Your task to perform on an android device: change keyboard looks Image 0: 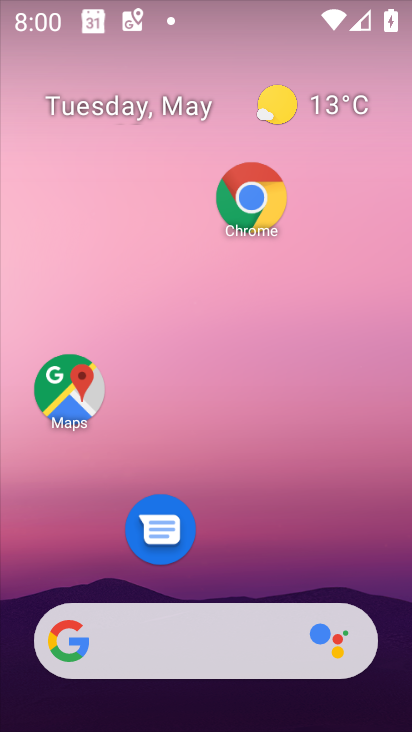
Step 0: drag from (361, 535) to (303, 130)
Your task to perform on an android device: change keyboard looks Image 1: 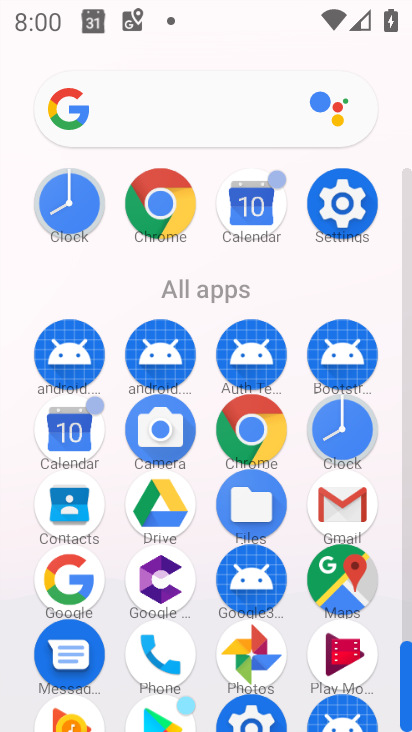
Step 1: click (341, 196)
Your task to perform on an android device: change keyboard looks Image 2: 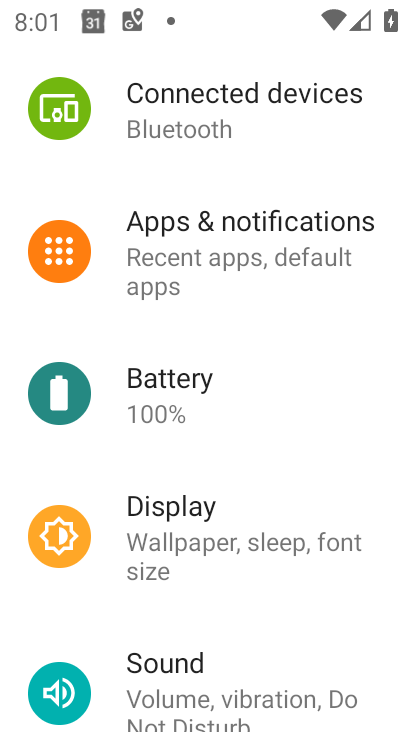
Step 2: drag from (256, 188) to (376, 700)
Your task to perform on an android device: change keyboard looks Image 3: 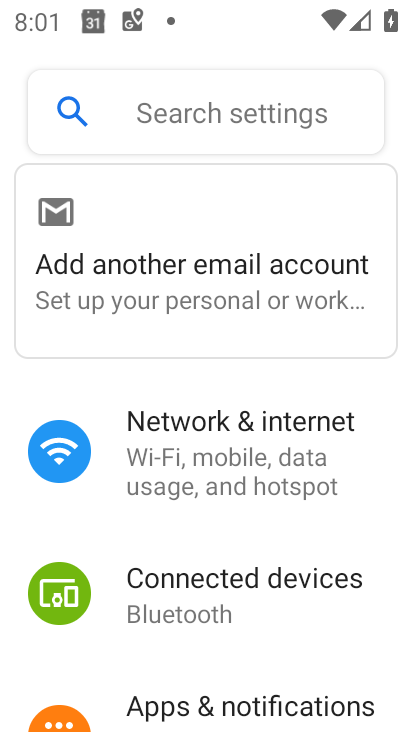
Step 3: drag from (293, 653) to (358, 8)
Your task to perform on an android device: change keyboard looks Image 4: 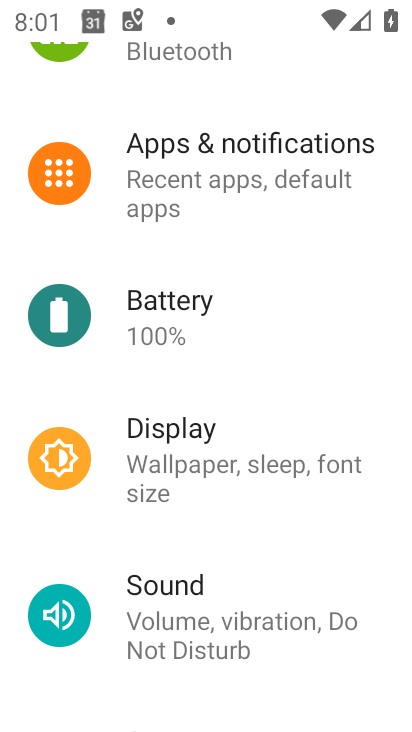
Step 4: drag from (245, 553) to (286, 9)
Your task to perform on an android device: change keyboard looks Image 5: 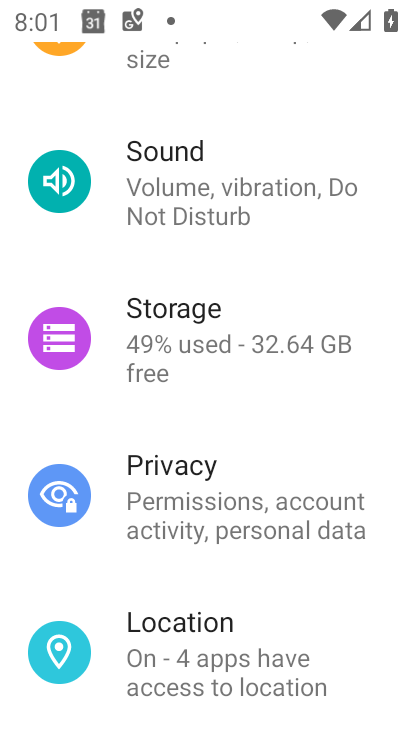
Step 5: drag from (215, 671) to (242, 77)
Your task to perform on an android device: change keyboard looks Image 6: 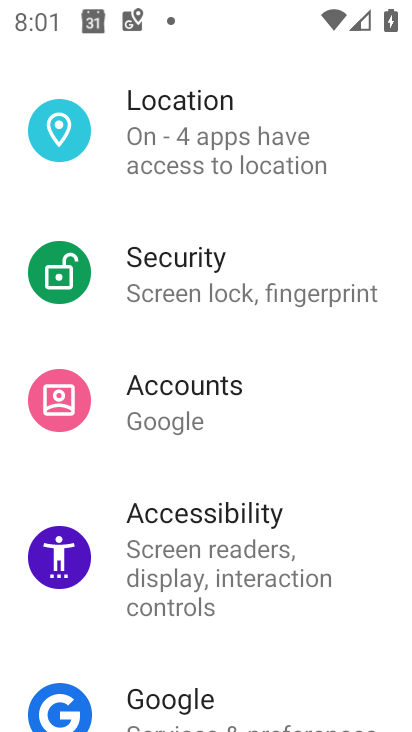
Step 6: drag from (191, 664) to (249, 12)
Your task to perform on an android device: change keyboard looks Image 7: 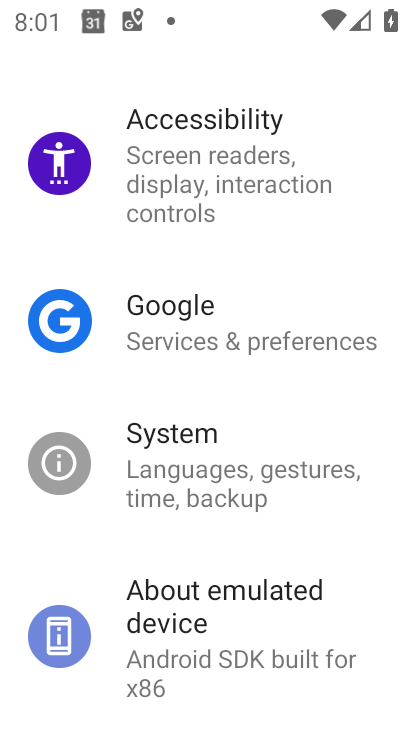
Step 7: click (207, 611)
Your task to perform on an android device: change keyboard looks Image 8: 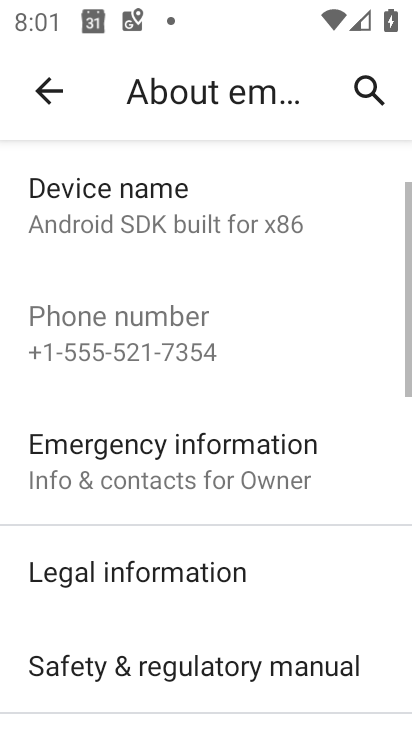
Step 8: click (42, 95)
Your task to perform on an android device: change keyboard looks Image 9: 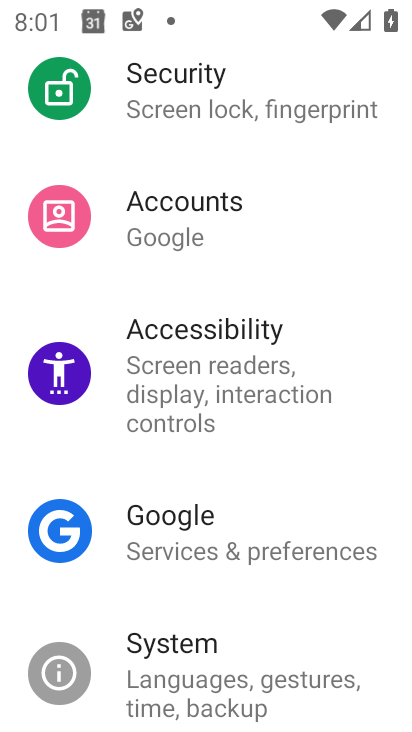
Step 9: click (226, 687)
Your task to perform on an android device: change keyboard looks Image 10: 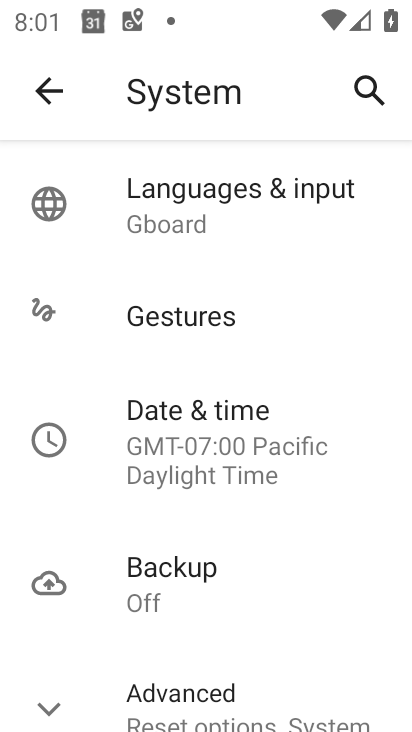
Step 10: click (191, 203)
Your task to perform on an android device: change keyboard looks Image 11: 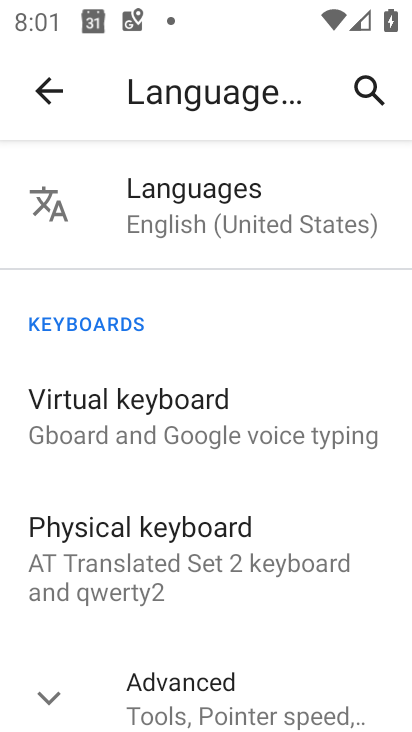
Step 11: click (213, 439)
Your task to perform on an android device: change keyboard looks Image 12: 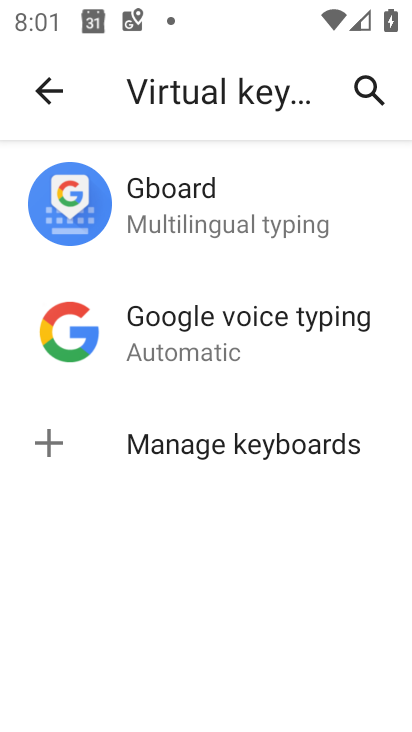
Step 12: click (238, 233)
Your task to perform on an android device: change keyboard looks Image 13: 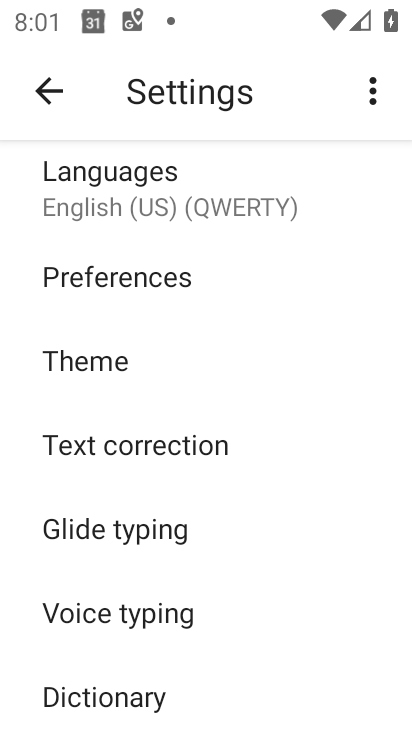
Step 13: click (108, 369)
Your task to perform on an android device: change keyboard looks Image 14: 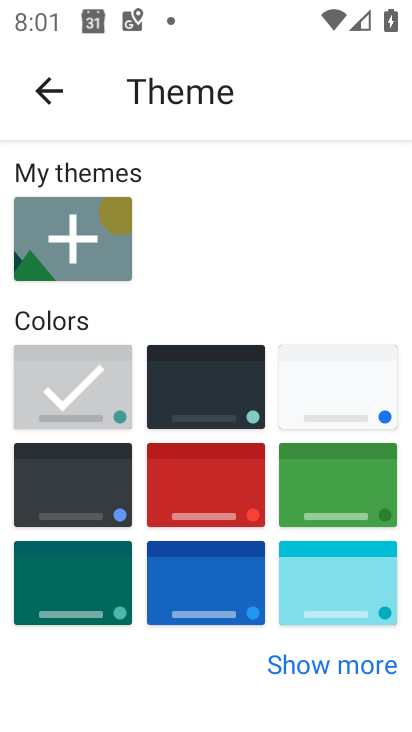
Step 14: click (199, 404)
Your task to perform on an android device: change keyboard looks Image 15: 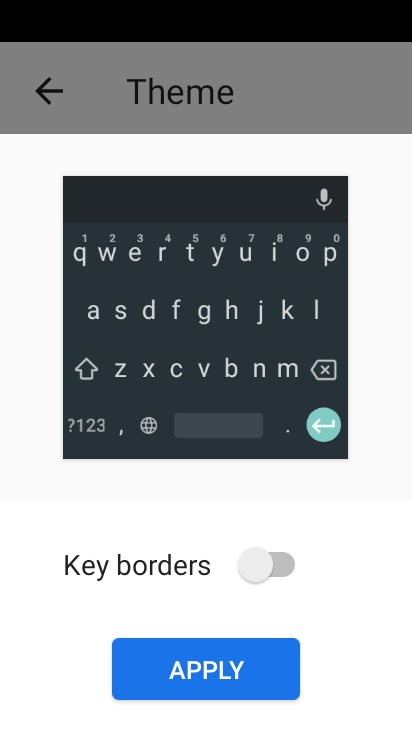
Step 15: task complete